Your task to perform on an android device: check out phone information Image 0: 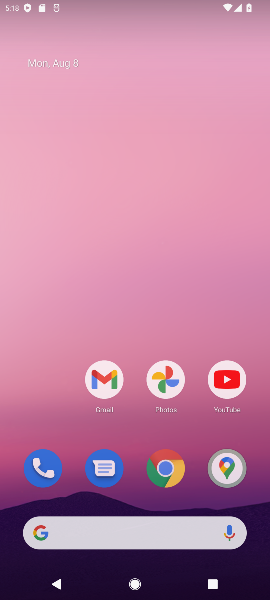
Step 0: press home button
Your task to perform on an android device: check out phone information Image 1: 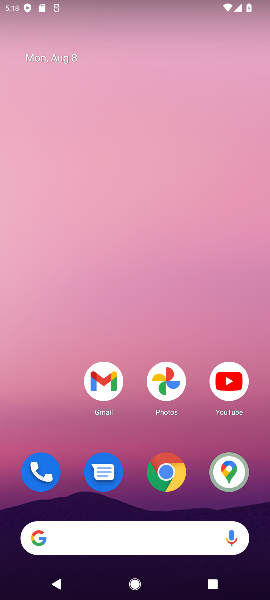
Step 1: drag from (57, 413) to (242, 1)
Your task to perform on an android device: check out phone information Image 2: 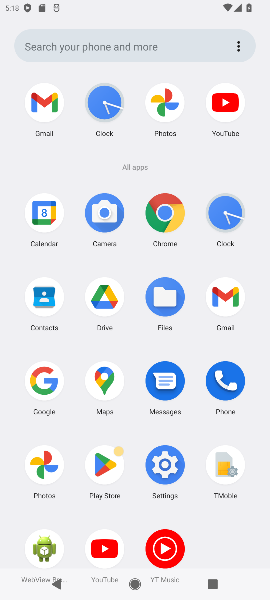
Step 2: click (177, 462)
Your task to perform on an android device: check out phone information Image 3: 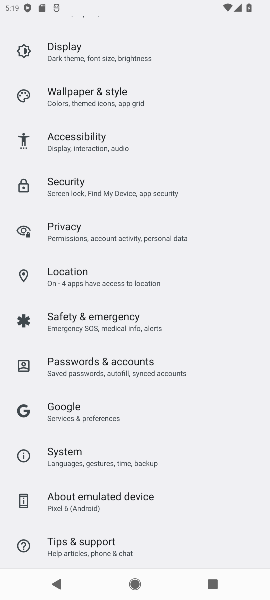
Step 3: click (118, 491)
Your task to perform on an android device: check out phone information Image 4: 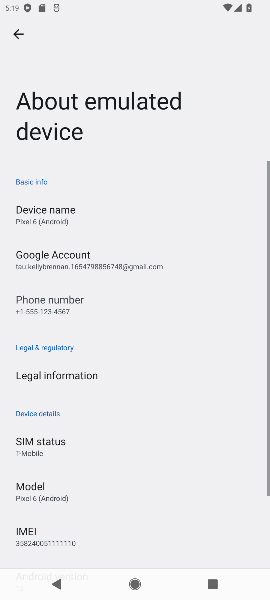
Step 4: drag from (197, 505) to (180, 261)
Your task to perform on an android device: check out phone information Image 5: 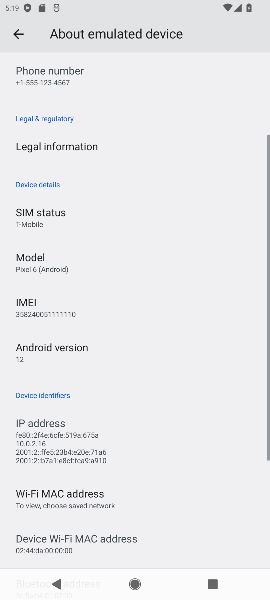
Step 5: click (115, 141)
Your task to perform on an android device: check out phone information Image 6: 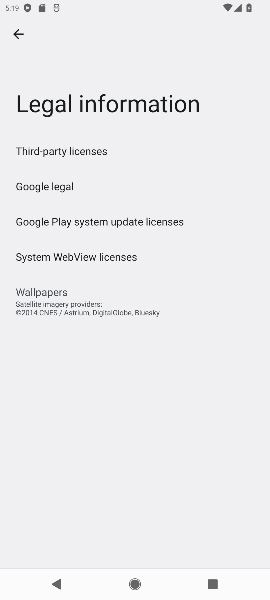
Step 6: task complete